Your task to perform on an android device: Go to location settings Image 0: 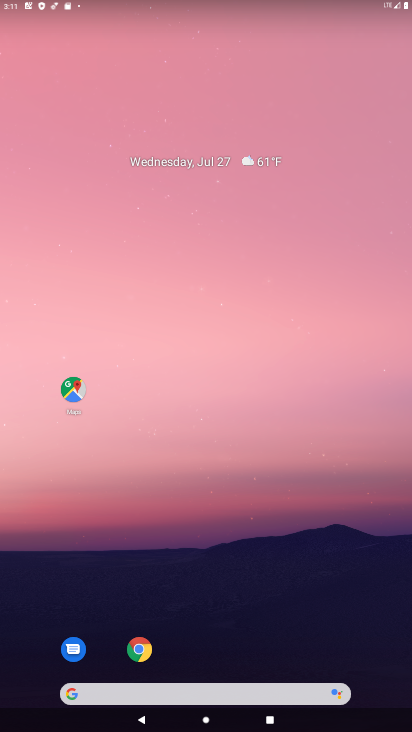
Step 0: drag from (191, 284) to (227, 114)
Your task to perform on an android device: Go to location settings Image 1: 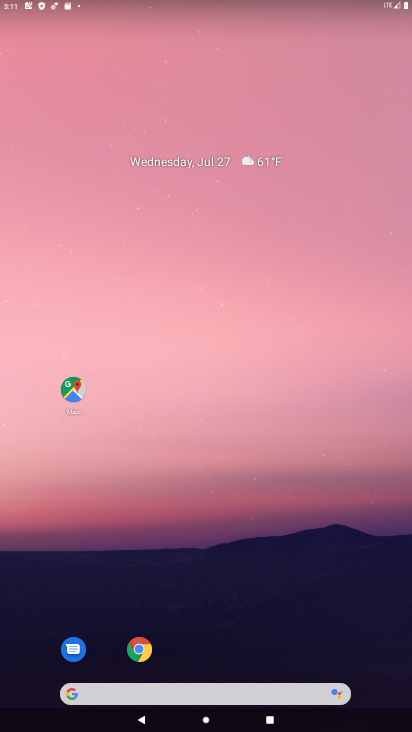
Step 1: drag from (196, 668) to (175, 160)
Your task to perform on an android device: Go to location settings Image 2: 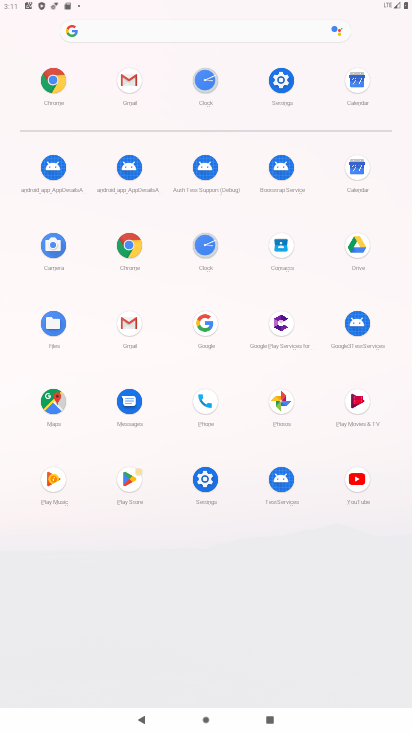
Step 2: click (283, 86)
Your task to perform on an android device: Go to location settings Image 3: 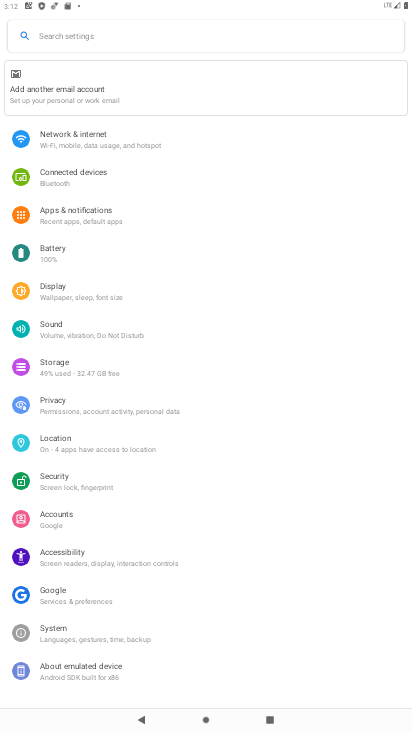
Step 3: click (45, 444)
Your task to perform on an android device: Go to location settings Image 4: 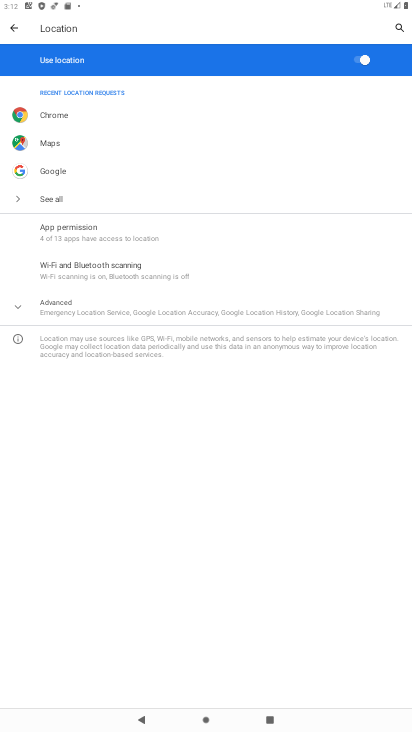
Step 4: task complete